Your task to perform on an android device: Do I have any events tomorrow? Image 0: 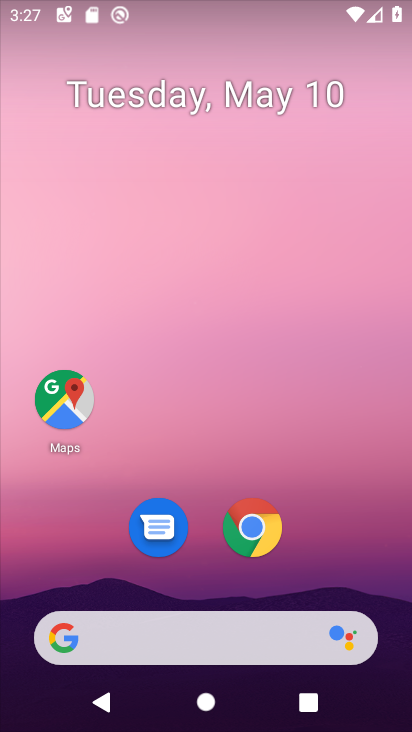
Step 0: click (386, 278)
Your task to perform on an android device: Do I have any events tomorrow? Image 1: 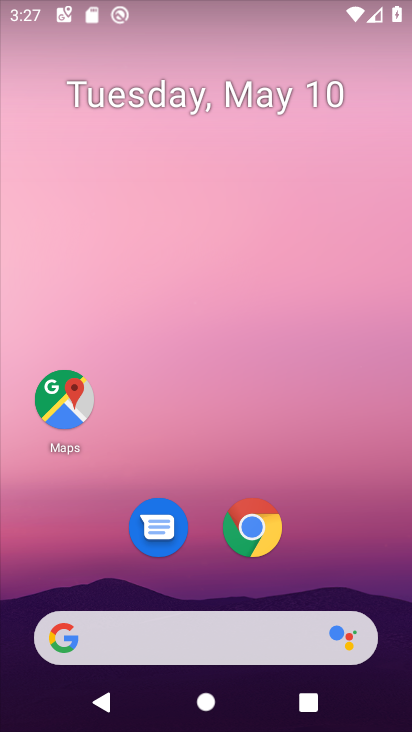
Step 1: drag from (395, 655) to (410, 179)
Your task to perform on an android device: Do I have any events tomorrow? Image 2: 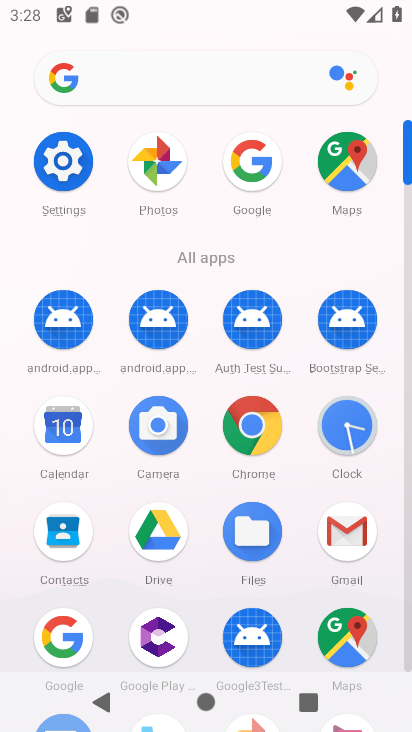
Step 2: click (56, 420)
Your task to perform on an android device: Do I have any events tomorrow? Image 3: 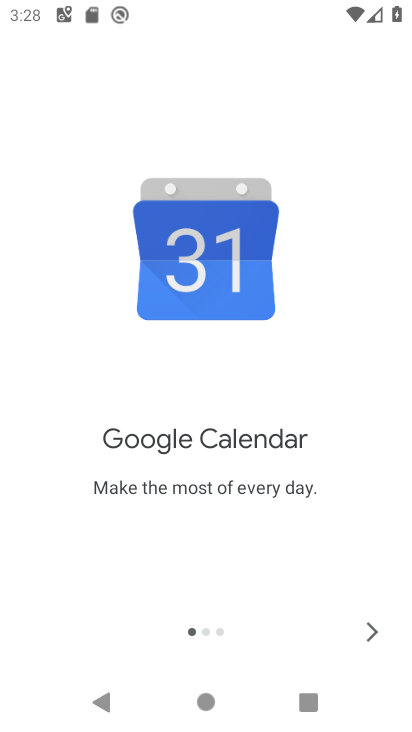
Step 3: click (360, 636)
Your task to perform on an android device: Do I have any events tomorrow? Image 4: 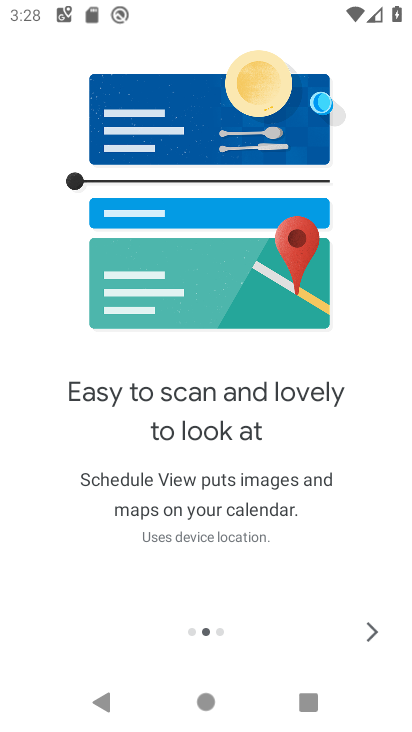
Step 4: click (365, 633)
Your task to perform on an android device: Do I have any events tomorrow? Image 5: 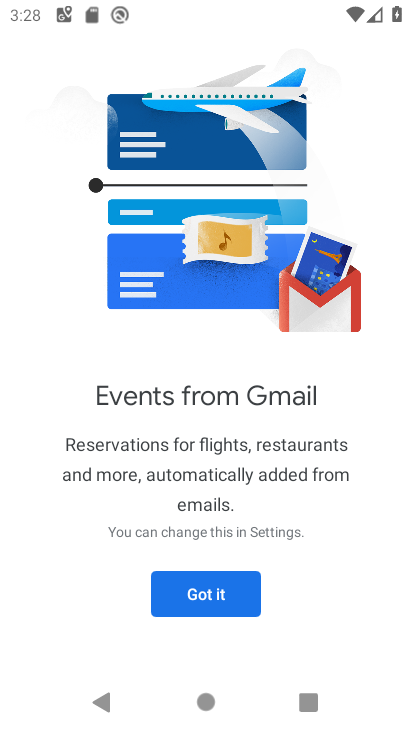
Step 5: click (208, 586)
Your task to perform on an android device: Do I have any events tomorrow? Image 6: 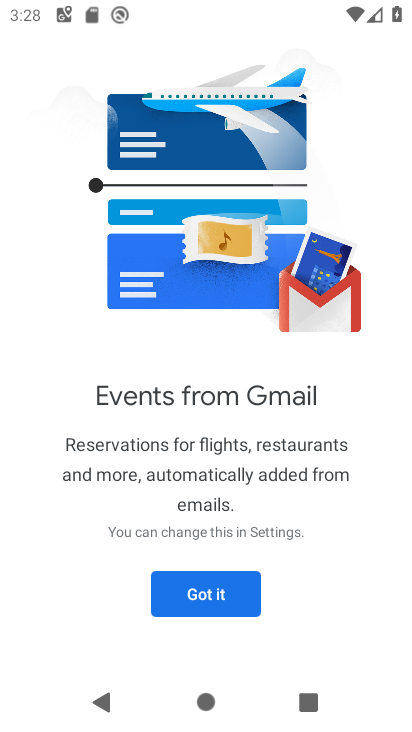
Step 6: click (211, 593)
Your task to perform on an android device: Do I have any events tomorrow? Image 7: 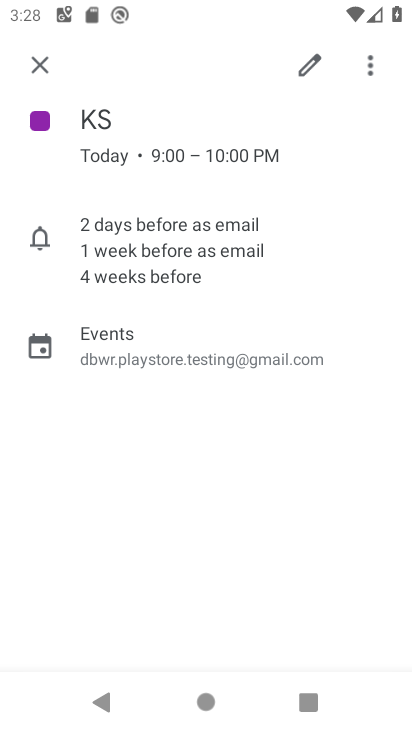
Step 7: click (39, 63)
Your task to perform on an android device: Do I have any events tomorrow? Image 8: 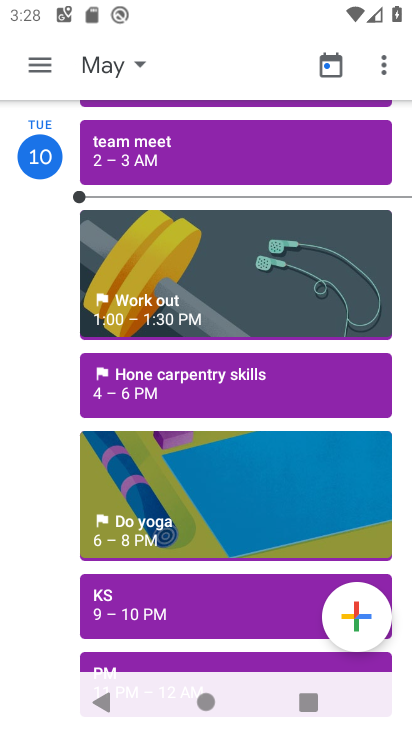
Step 8: click (134, 64)
Your task to perform on an android device: Do I have any events tomorrow? Image 9: 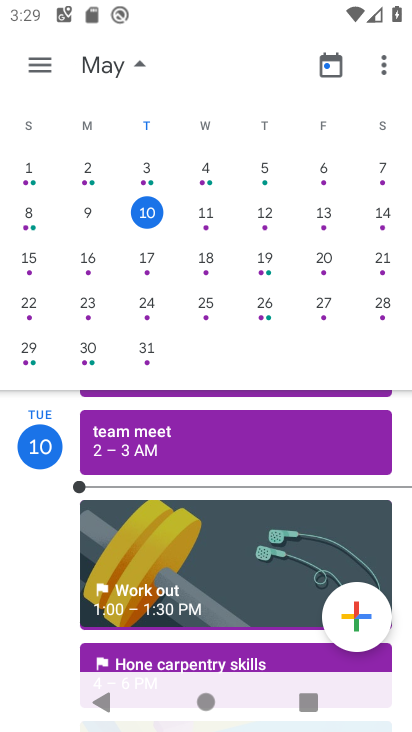
Step 9: task complete